Your task to perform on an android device: What's the weather going to be tomorrow? Image 0: 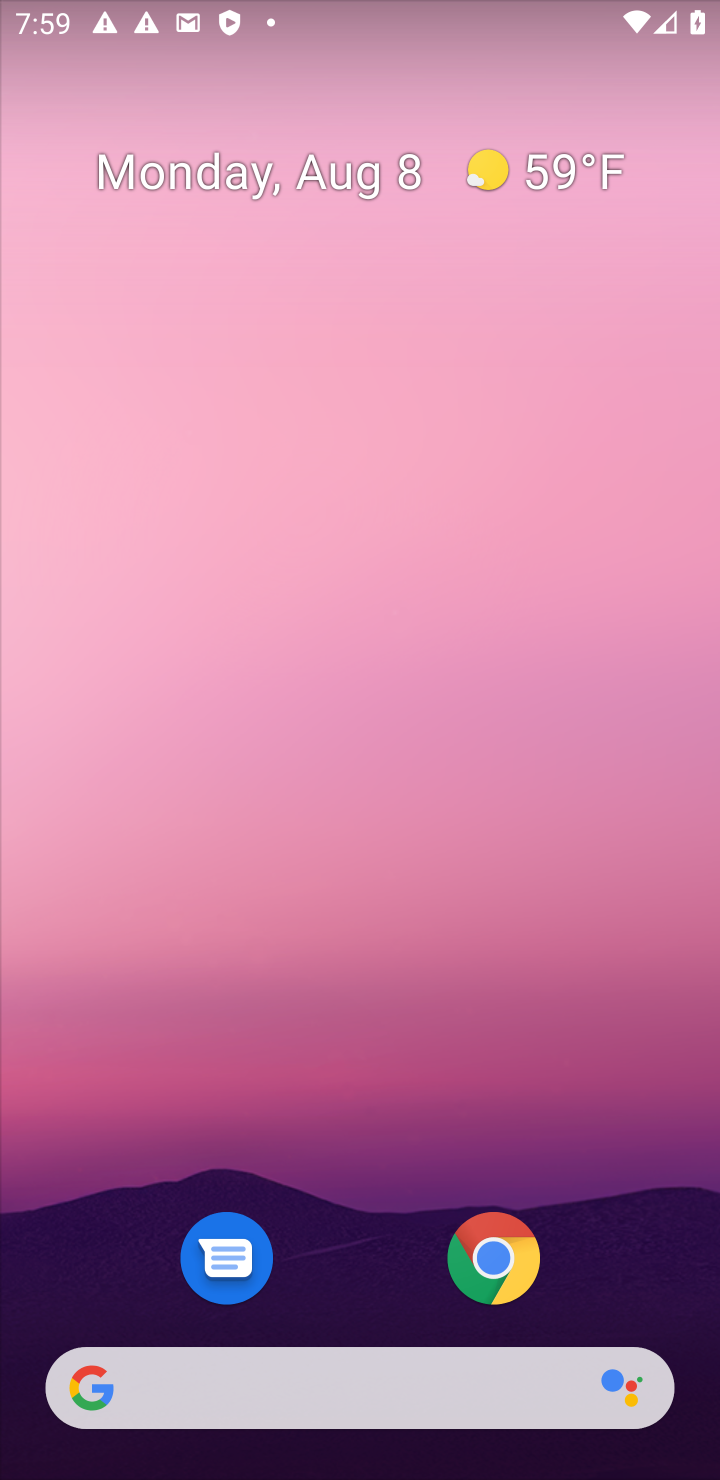
Step 0: drag from (271, 771) to (299, 290)
Your task to perform on an android device: What's the weather going to be tomorrow? Image 1: 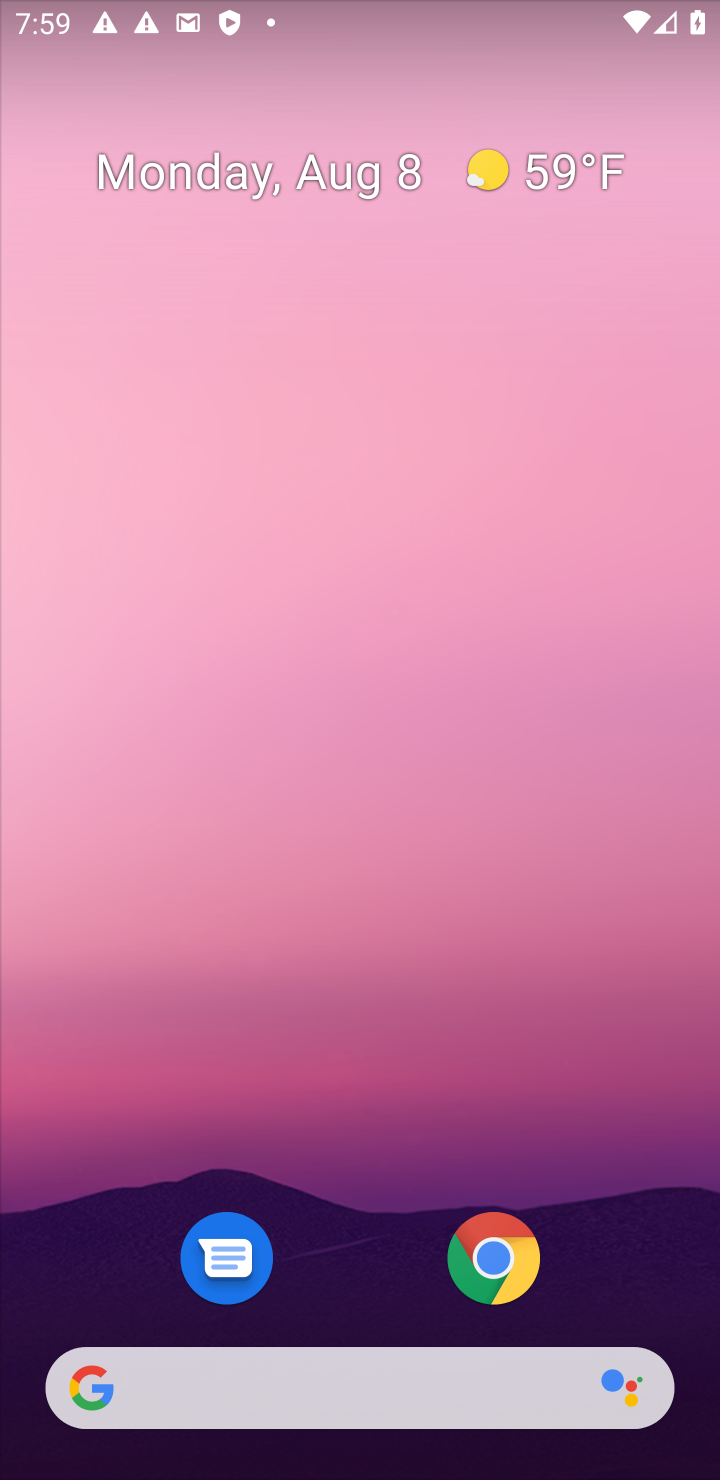
Step 1: drag from (449, 961) to (450, 320)
Your task to perform on an android device: What's the weather going to be tomorrow? Image 2: 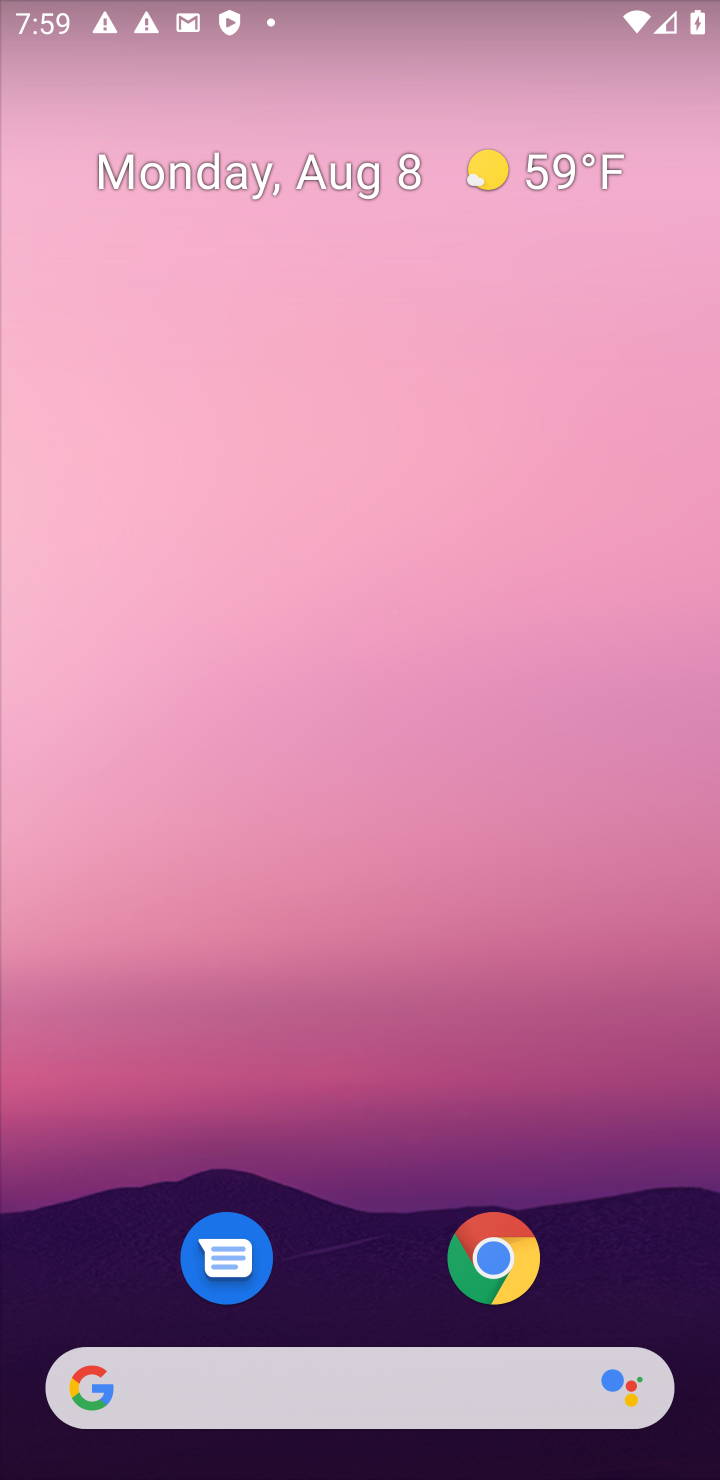
Step 2: drag from (380, 1078) to (569, 257)
Your task to perform on an android device: What's the weather going to be tomorrow? Image 3: 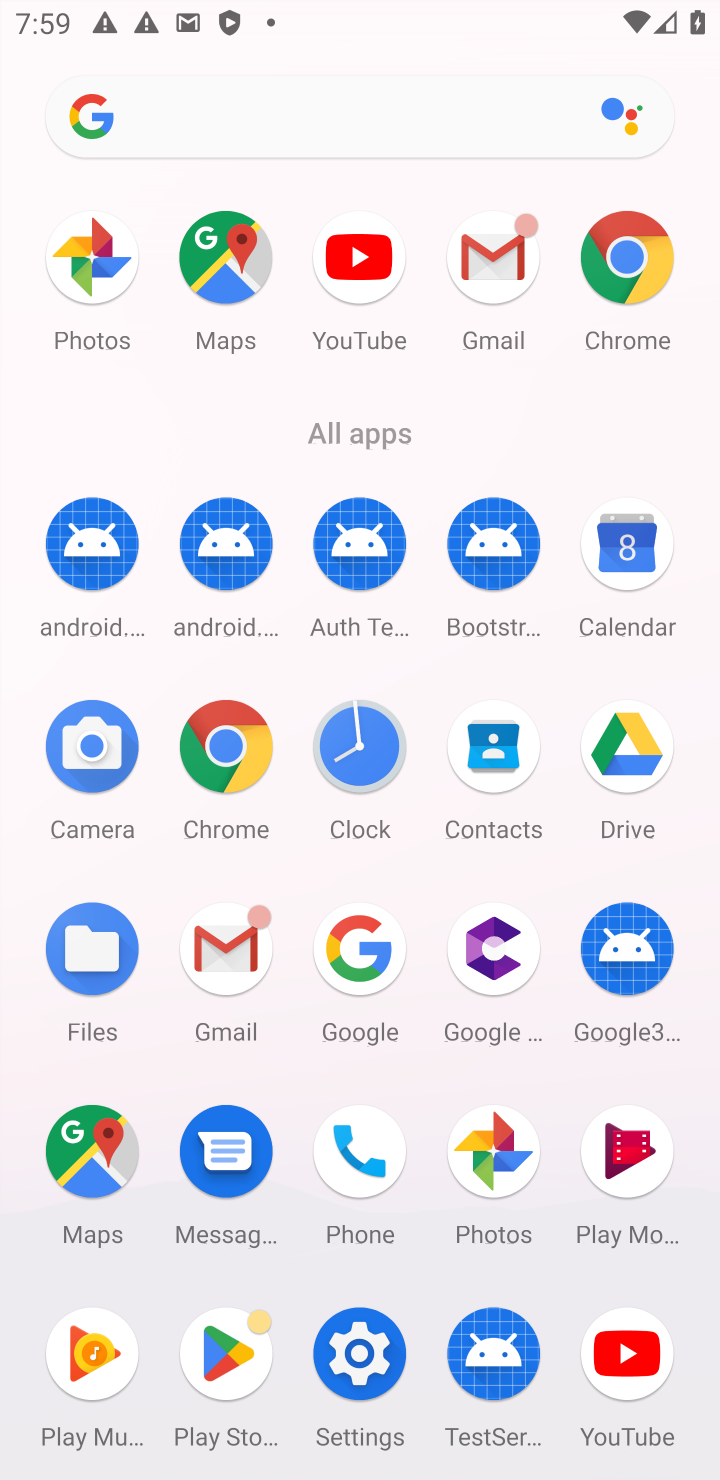
Step 3: click (641, 268)
Your task to perform on an android device: What's the weather going to be tomorrow? Image 4: 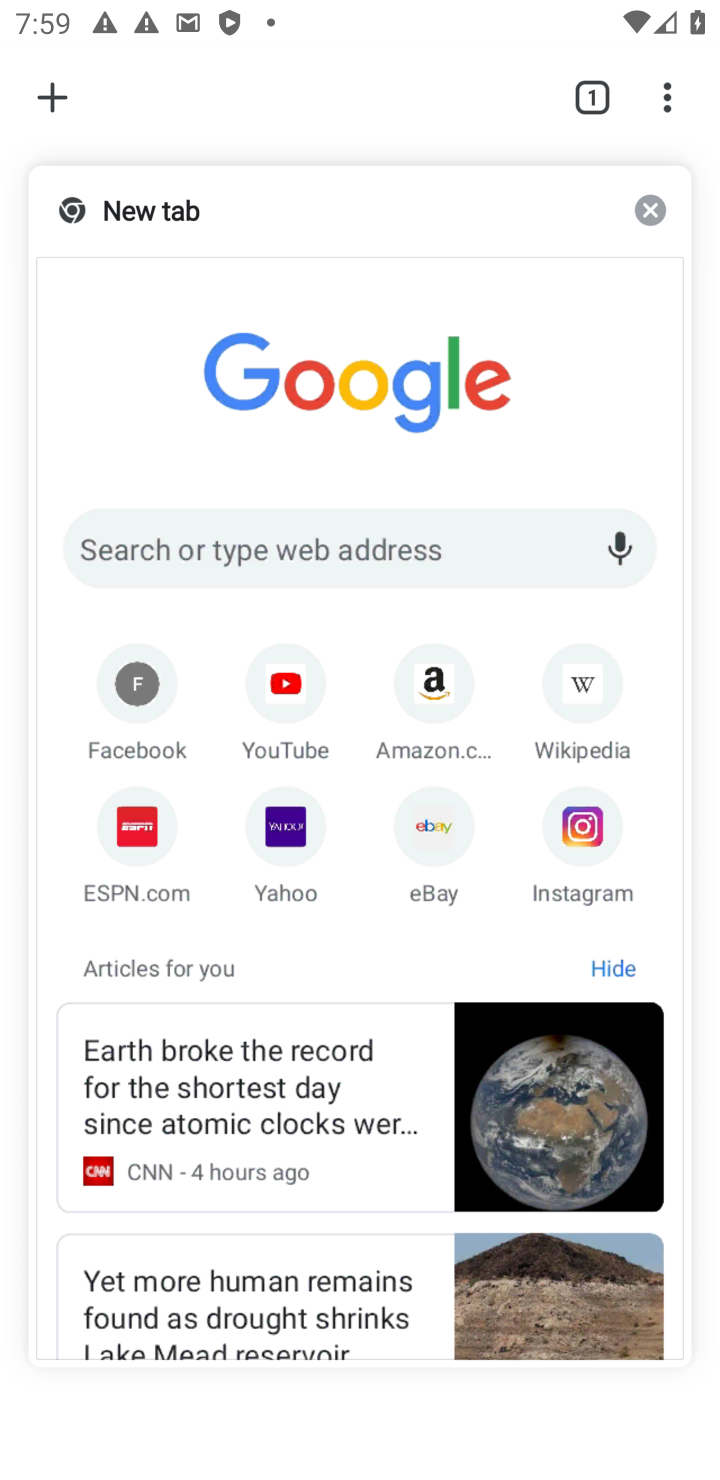
Step 4: click (42, 86)
Your task to perform on an android device: What's the weather going to be tomorrow? Image 5: 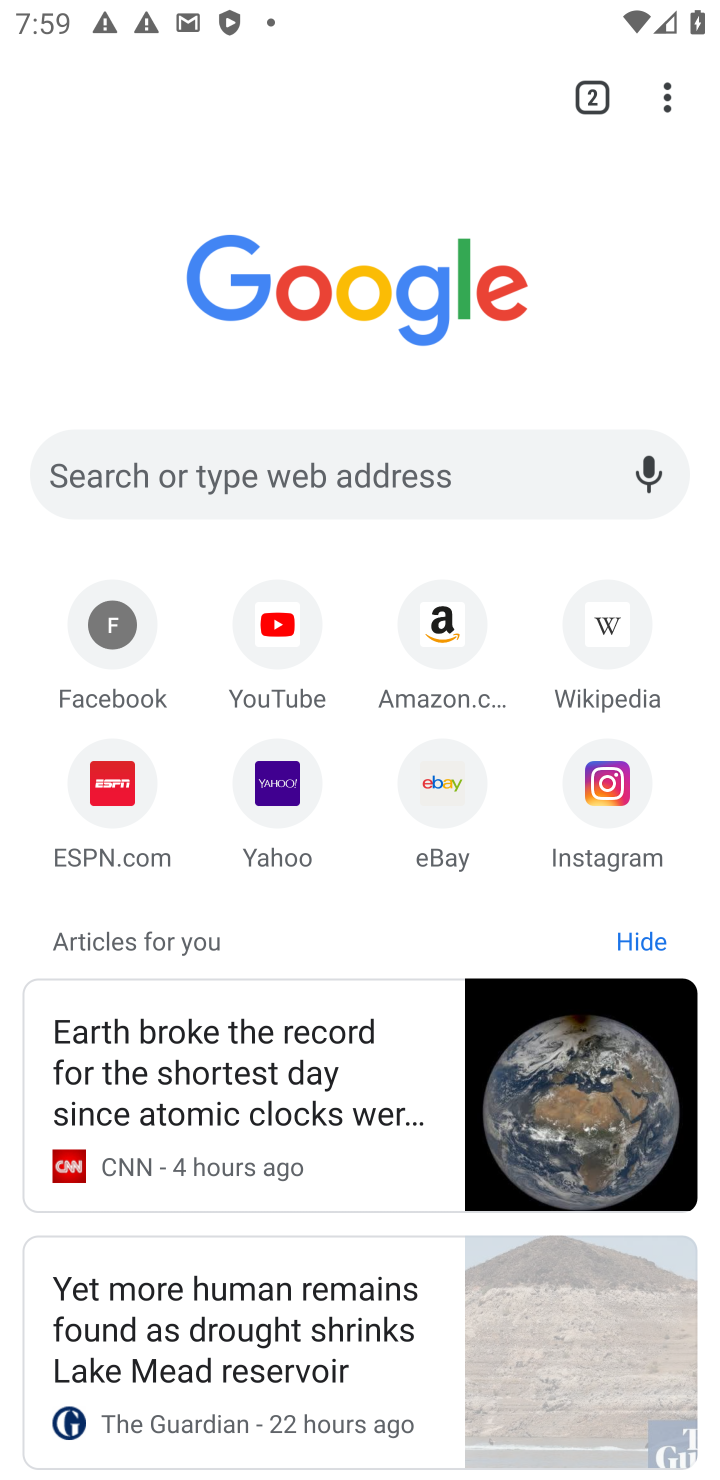
Step 5: click (290, 474)
Your task to perform on an android device: What's the weather going to be tomorrow? Image 6: 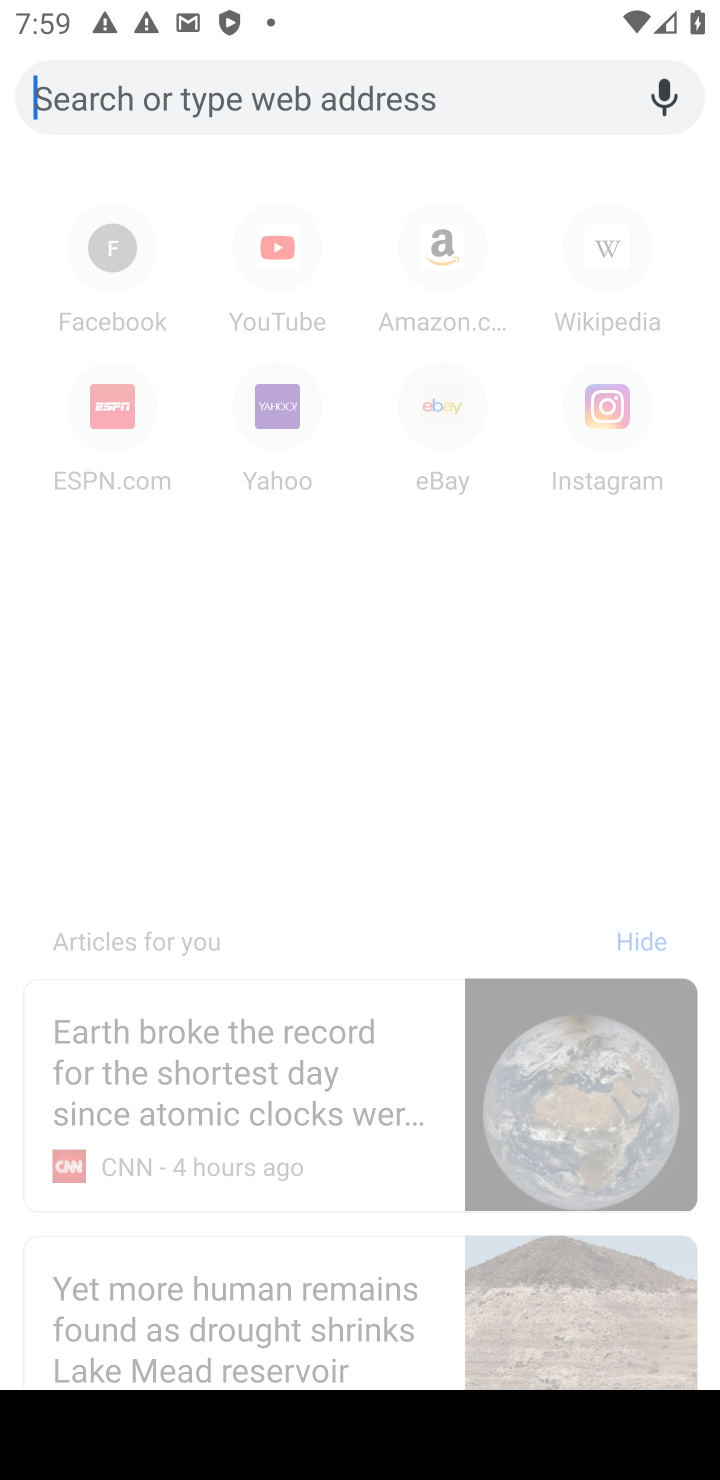
Step 6: type "What's the weather going to be tomorrow?"
Your task to perform on an android device: What's the weather going to be tomorrow? Image 7: 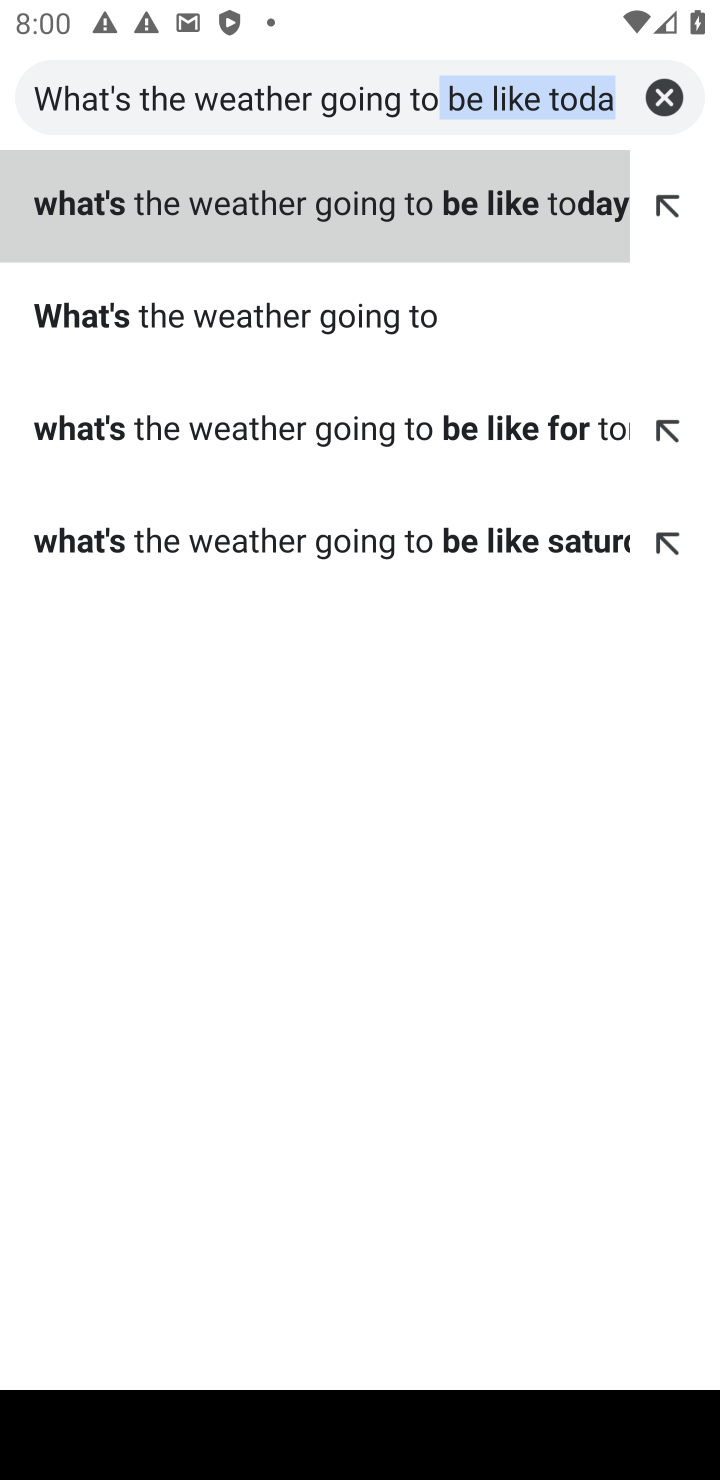
Step 7: task complete